Your task to perform on an android device: turn off wifi Image 0: 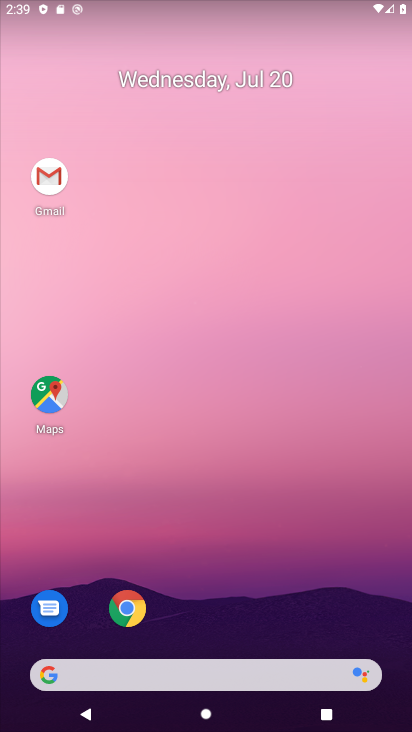
Step 0: drag from (207, 651) to (153, 159)
Your task to perform on an android device: turn off wifi Image 1: 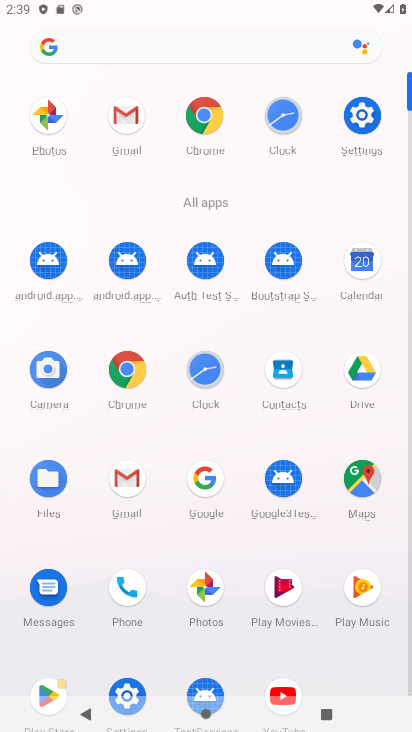
Step 1: drag from (347, 108) to (189, 173)
Your task to perform on an android device: turn off wifi Image 2: 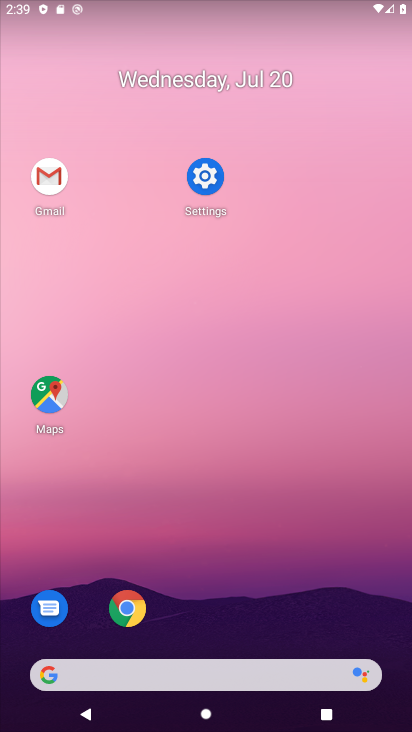
Step 2: click (211, 174)
Your task to perform on an android device: turn off wifi Image 3: 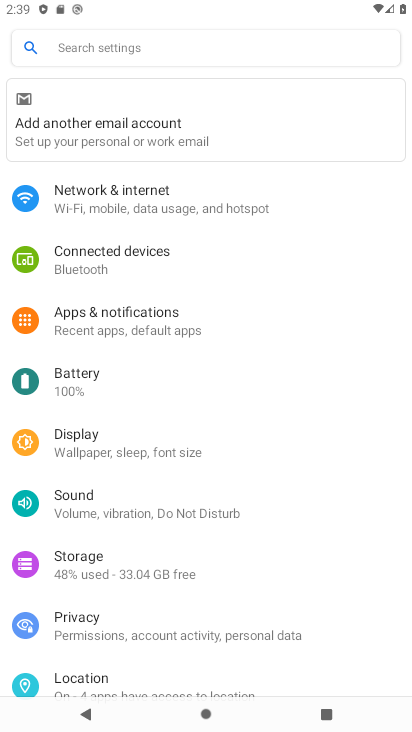
Step 3: click (164, 198)
Your task to perform on an android device: turn off wifi Image 4: 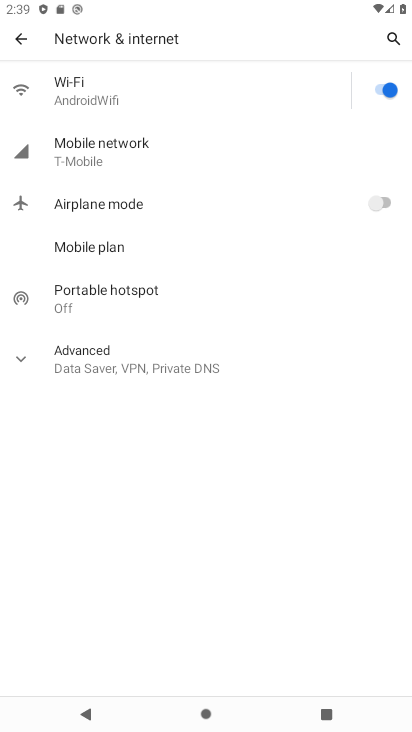
Step 4: click (387, 104)
Your task to perform on an android device: turn off wifi Image 5: 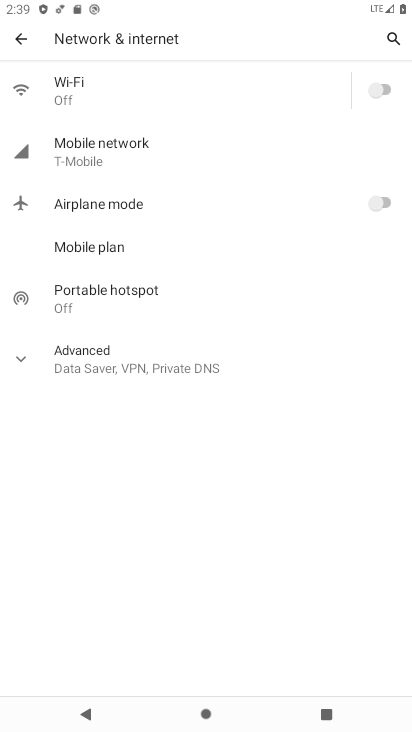
Step 5: task complete